Your task to perform on an android device: Open Android settings Image 0: 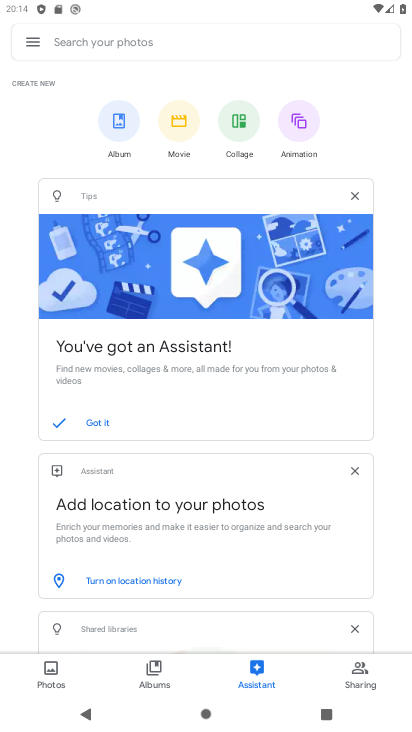
Step 0: press back button
Your task to perform on an android device: Open Android settings Image 1: 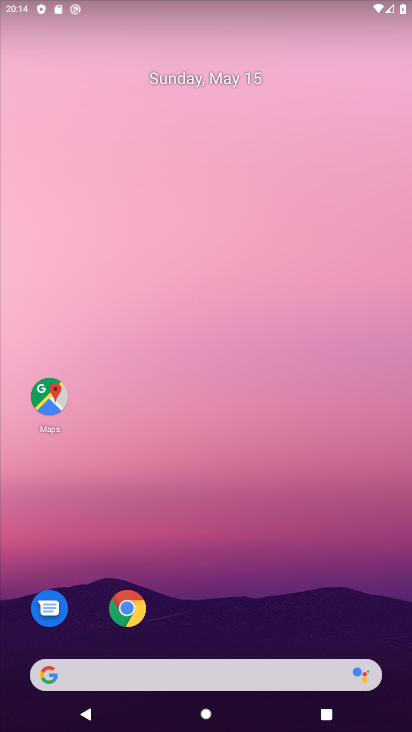
Step 1: drag from (219, 617) to (241, 97)
Your task to perform on an android device: Open Android settings Image 2: 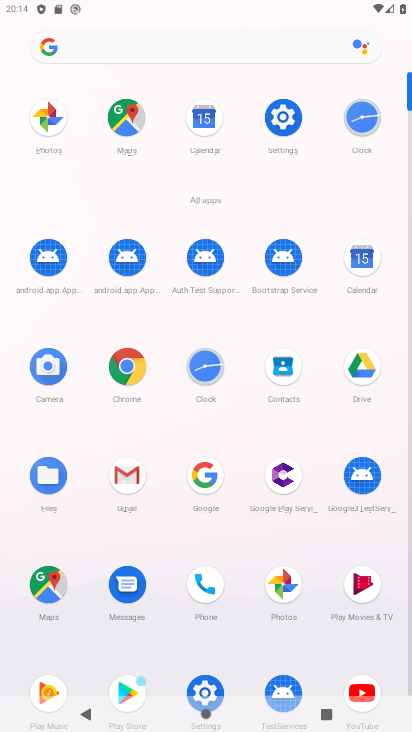
Step 2: click (296, 117)
Your task to perform on an android device: Open Android settings Image 3: 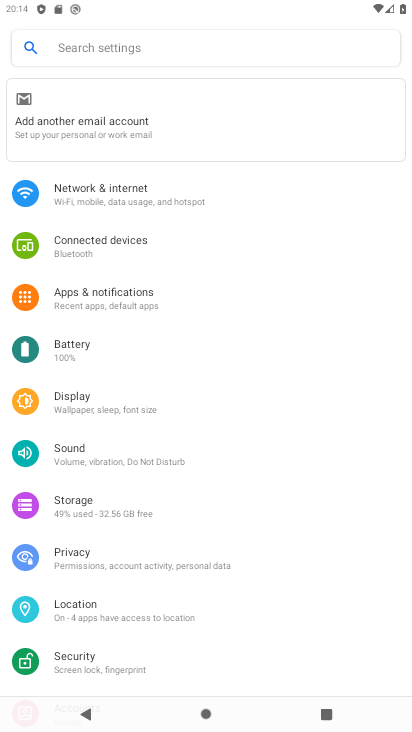
Step 3: drag from (185, 552) to (259, 111)
Your task to perform on an android device: Open Android settings Image 4: 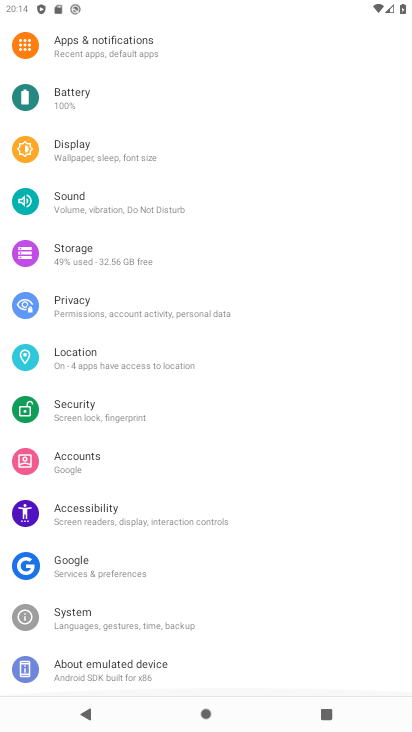
Step 4: drag from (116, 618) to (210, 106)
Your task to perform on an android device: Open Android settings Image 5: 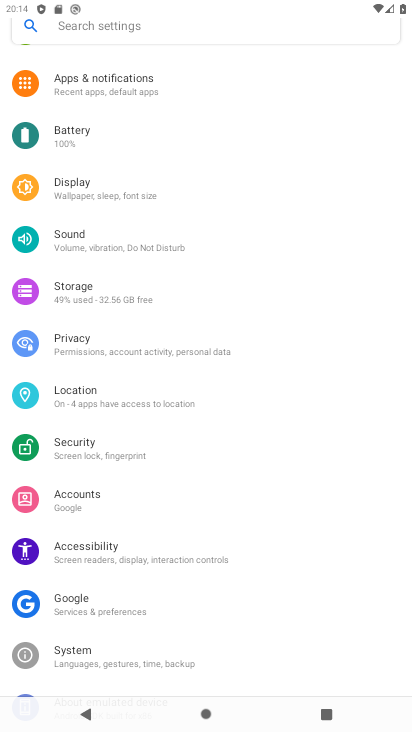
Step 5: drag from (101, 663) to (206, 108)
Your task to perform on an android device: Open Android settings Image 6: 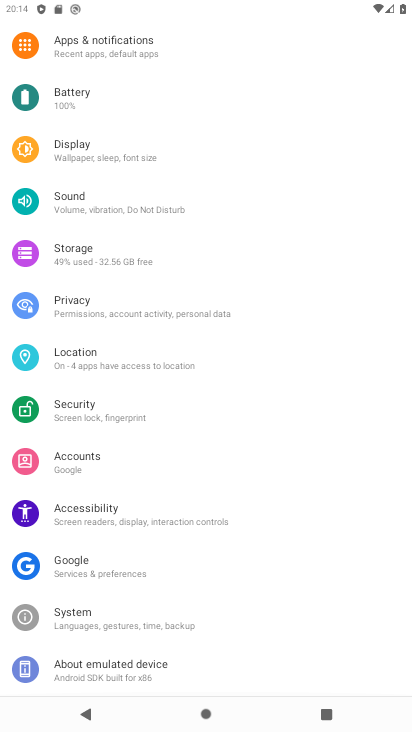
Step 6: click (130, 677)
Your task to perform on an android device: Open Android settings Image 7: 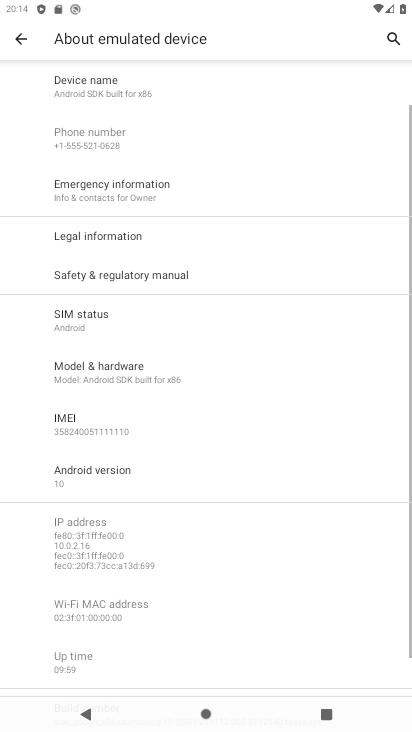
Step 7: click (77, 477)
Your task to perform on an android device: Open Android settings Image 8: 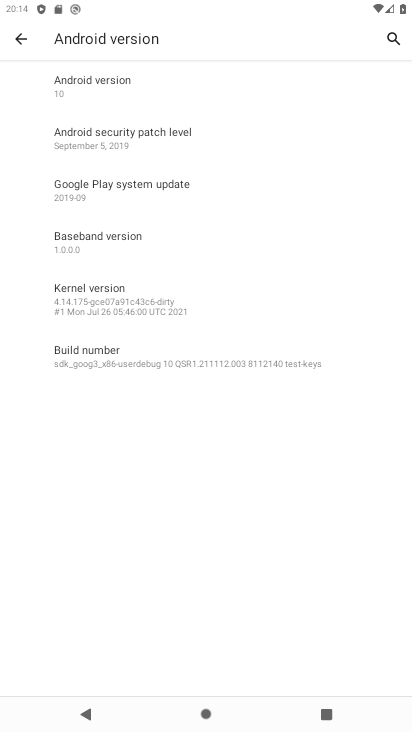
Step 8: click (96, 77)
Your task to perform on an android device: Open Android settings Image 9: 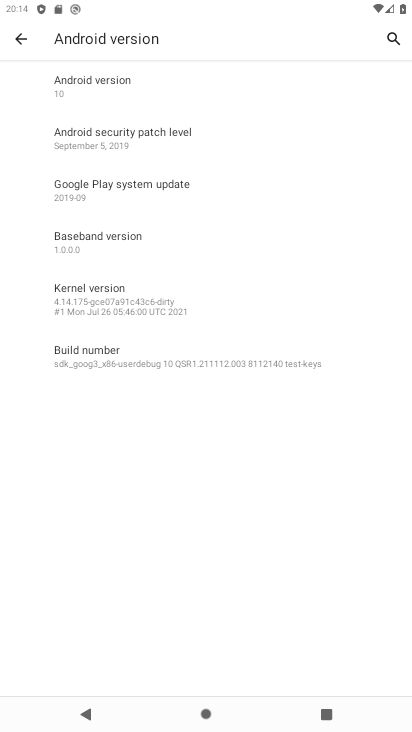
Step 9: task complete